Your task to perform on an android device: toggle pop-ups in chrome Image 0: 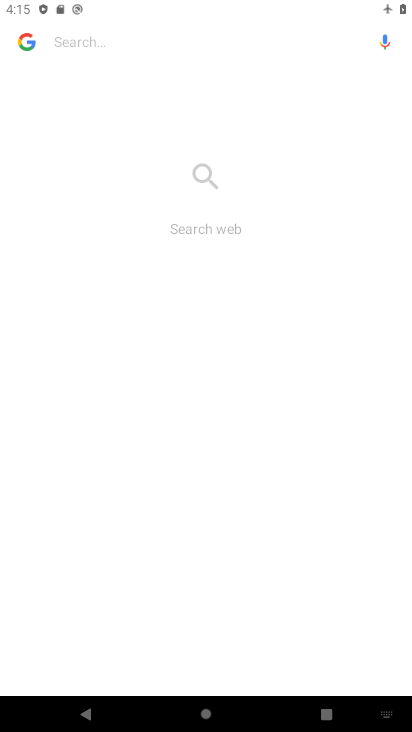
Step 0: press home button
Your task to perform on an android device: toggle pop-ups in chrome Image 1: 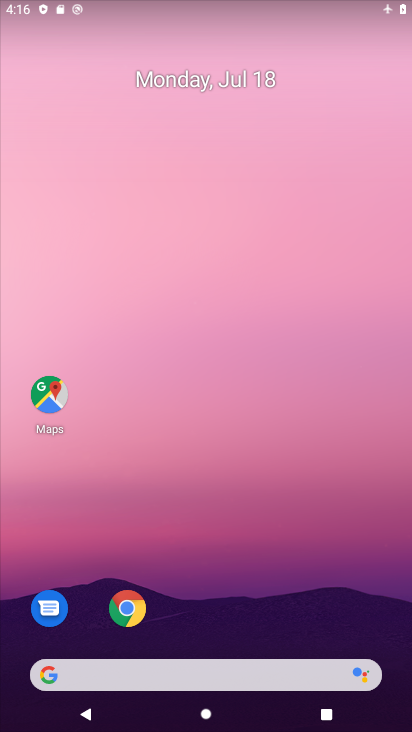
Step 1: drag from (282, 620) to (236, 25)
Your task to perform on an android device: toggle pop-ups in chrome Image 2: 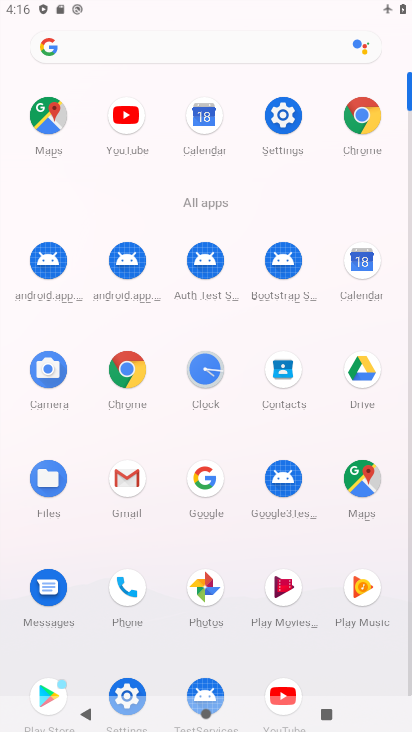
Step 2: click (362, 117)
Your task to perform on an android device: toggle pop-ups in chrome Image 3: 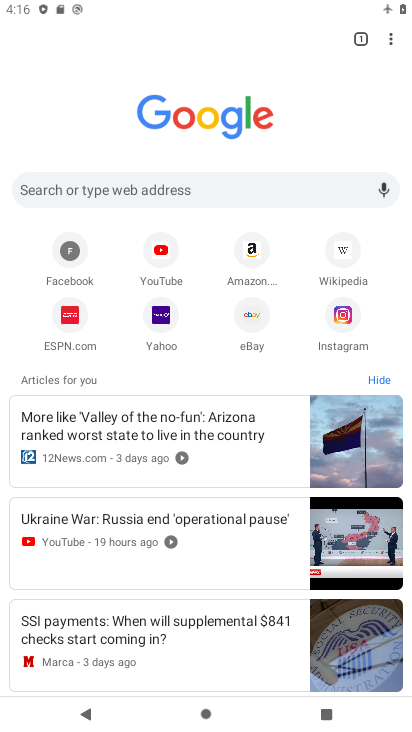
Step 3: click (387, 36)
Your task to perform on an android device: toggle pop-ups in chrome Image 4: 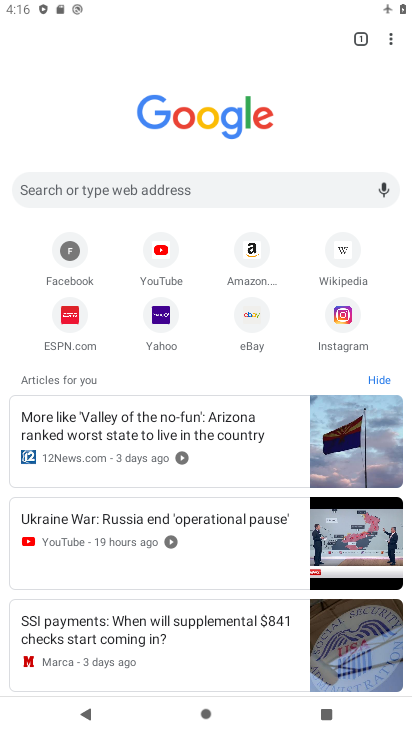
Step 4: drag from (387, 36) to (255, 331)
Your task to perform on an android device: toggle pop-ups in chrome Image 5: 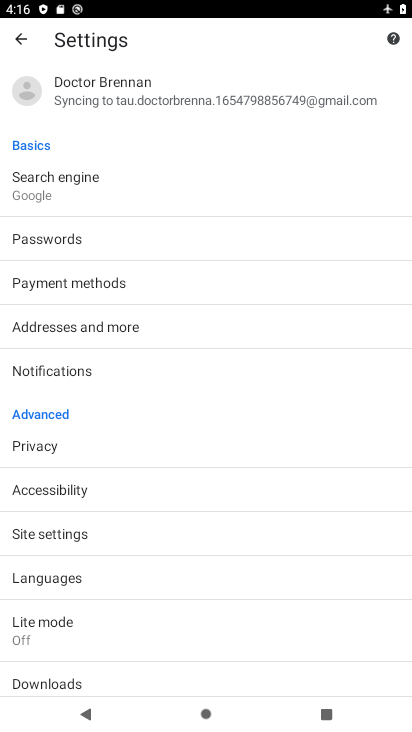
Step 5: click (65, 545)
Your task to perform on an android device: toggle pop-ups in chrome Image 6: 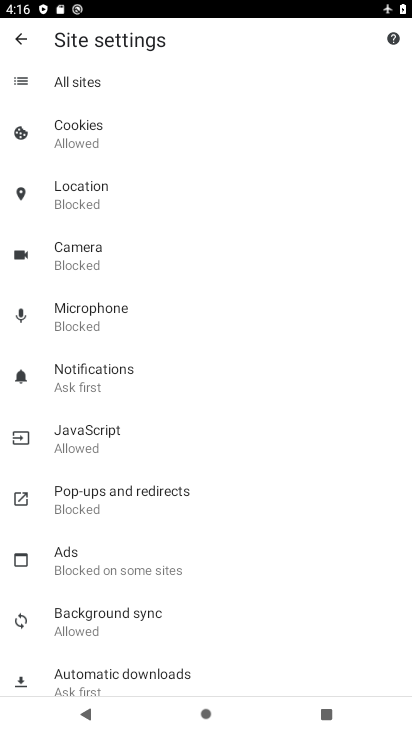
Step 6: click (138, 495)
Your task to perform on an android device: toggle pop-ups in chrome Image 7: 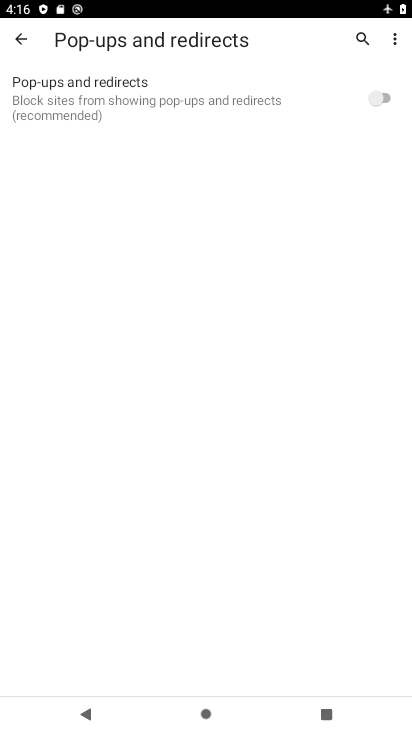
Step 7: click (377, 107)
Your task to perform on an android device: toggle pop-ups in chrome Image 8: 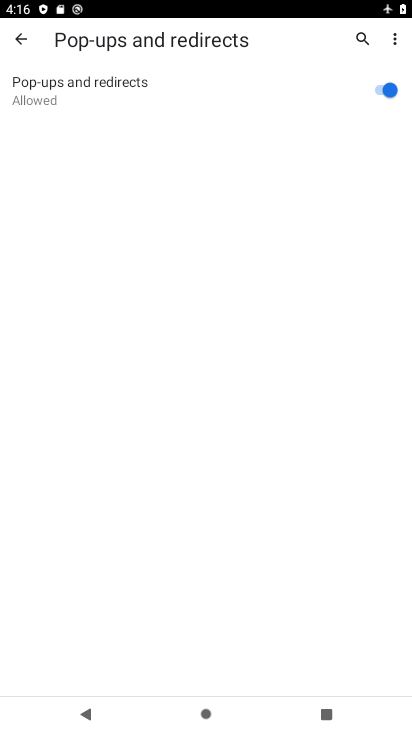
Step 8: task complete